Your task to perform on an android device: delete browsing data in the chrome app Image 0: 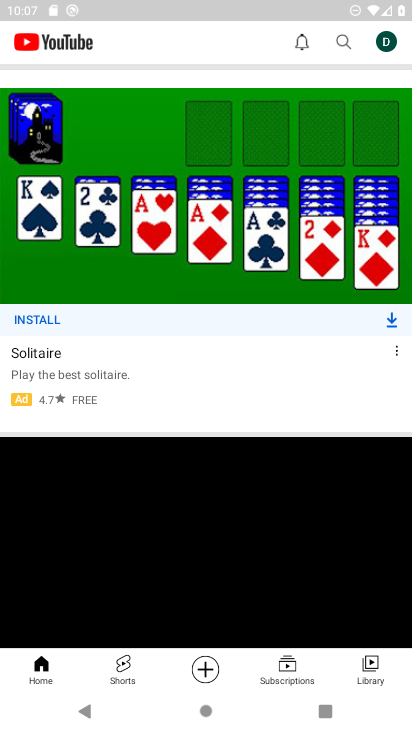
Step 0: press home button
Your task to perform on an android device: delete browsing data in the chrome app Image 1: 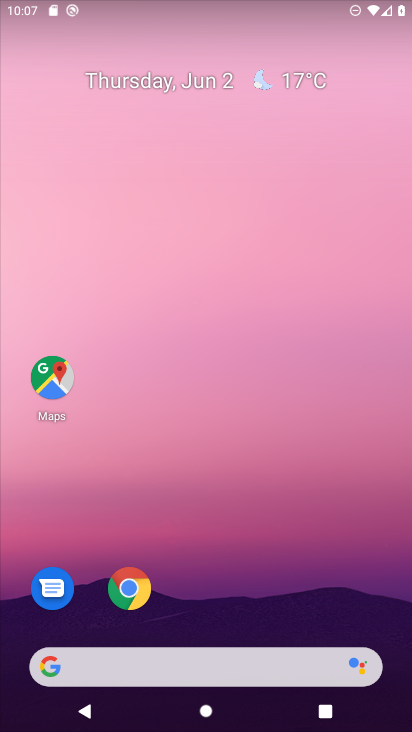
Step 1: drag from (219, 678) to (221, 226)
Your task to perform on an android device: delete browsing data in the chrome app Image 2: 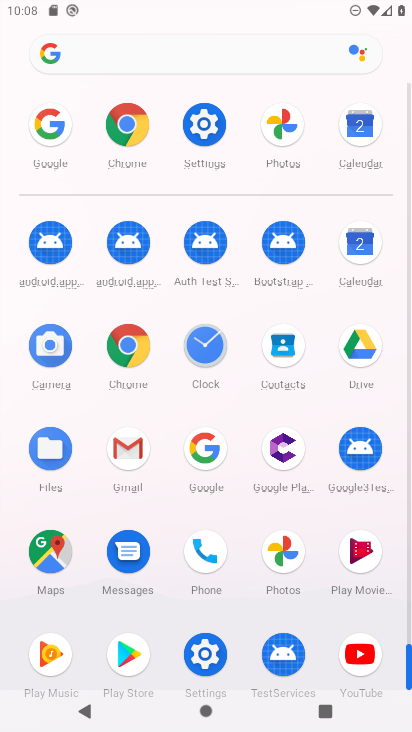
Step 2: click (140, 359)
Your task to perform on an android device: delete browsing data in the chrome app Image 3: 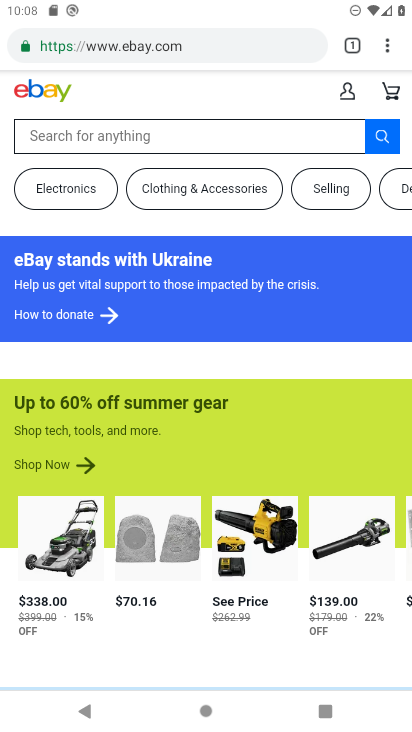
Step 3: click (391, 47)
Your task to perform on an android device: delete browsing data in the chrome app Image 4: 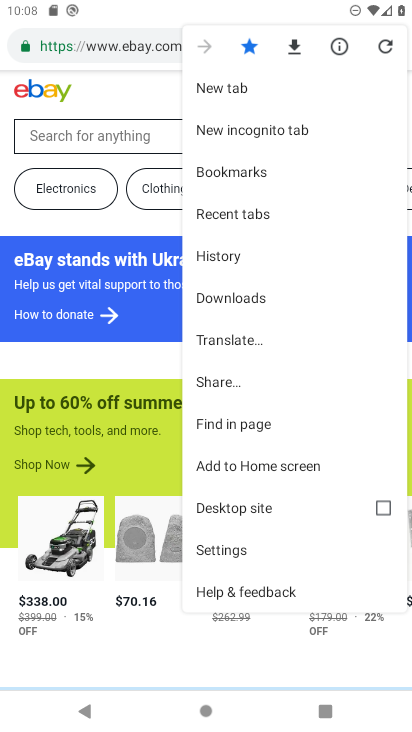
Step 4: click (238, 260)
Your task to perform on an android device: delete browsing data in the chrome app Image 5: 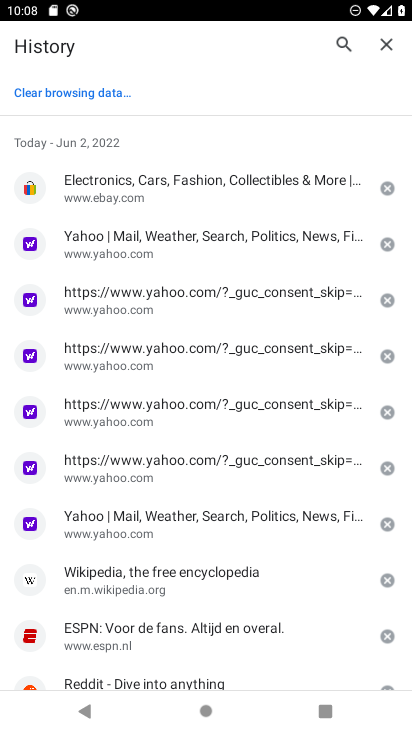
Step 5: click (49, 90)
Your task to perform on an android device: delete browsing data in the chrome app Image 6: 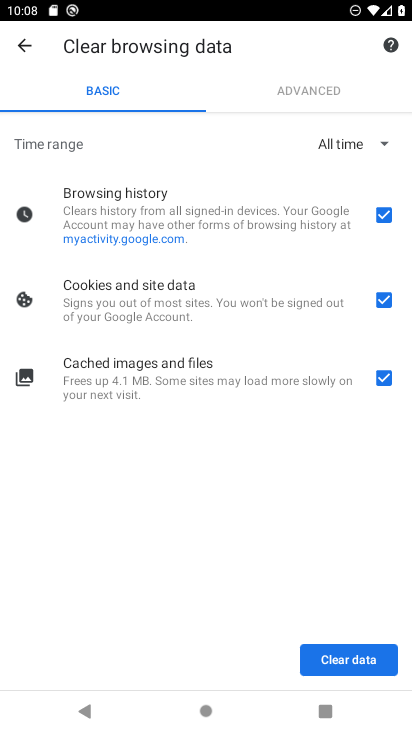
Step 6: click (342, 654)
Your task to perform on an android device: delete browsing data in the chrome app Image 7: 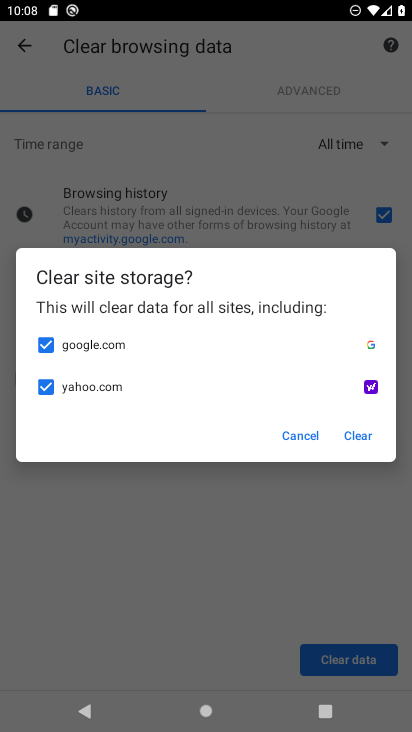
Step 7: click (362, 434)
Your task to perform on an android device: delete browsing data in the chrome app Image 8: 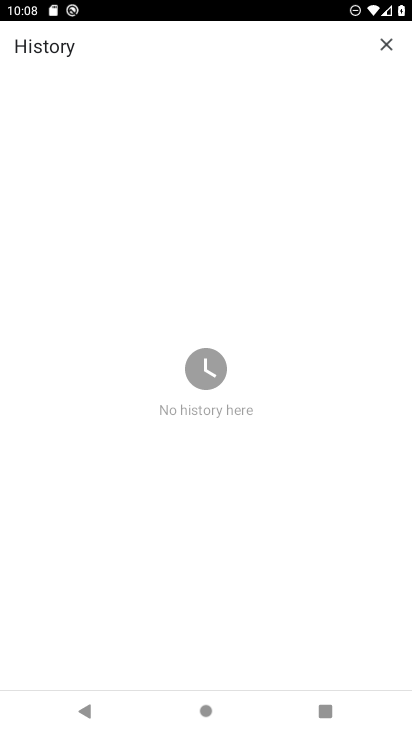
Step 8: task complete